Your task to perform on an android device: Open the calendar and show me this week's events? Image 0: 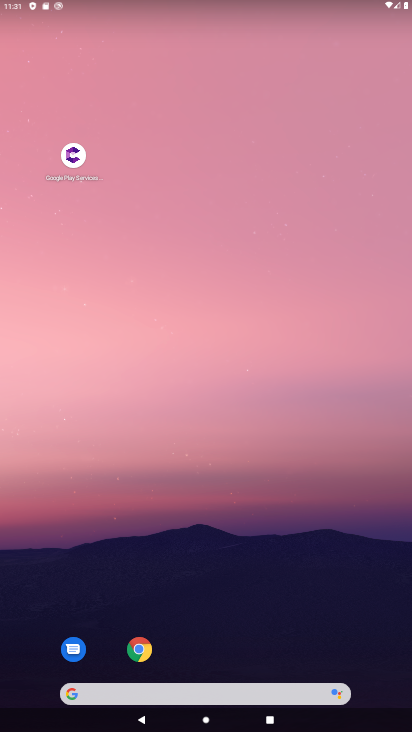
Step 0: drag from (281, 634) to (345, 9)
Your task to perform on an android device: Open the calendar and show me this week's events? Image 1: 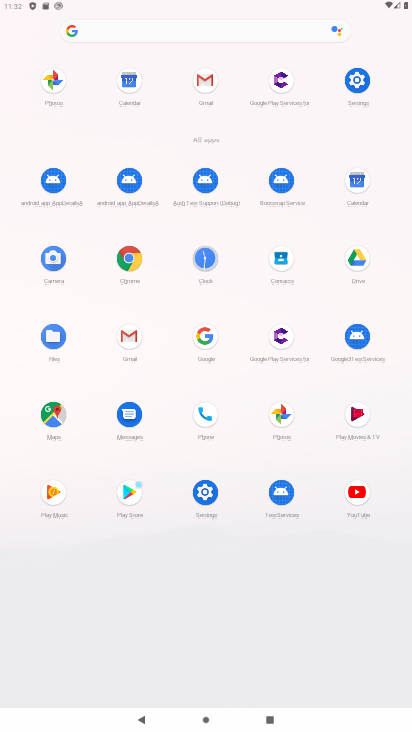
Step 1: click (358, 196)
Your task to perform on an android device: Open the calendar and show me this week's events? Image 2: 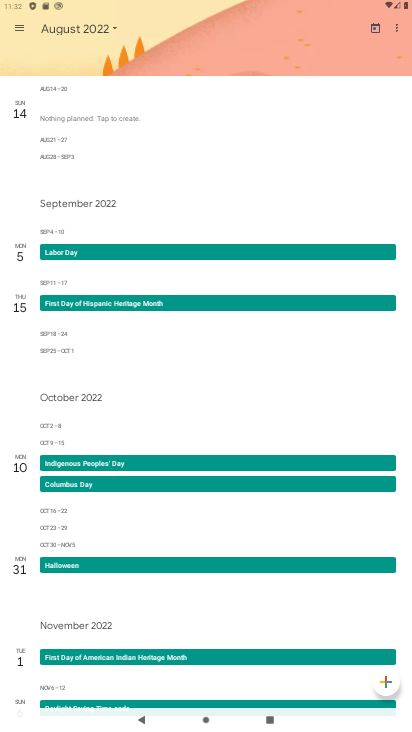
Step 2: click (66, 23)
Your task to perform on an android device: Open the calendar and show me this week's events? Image 3: 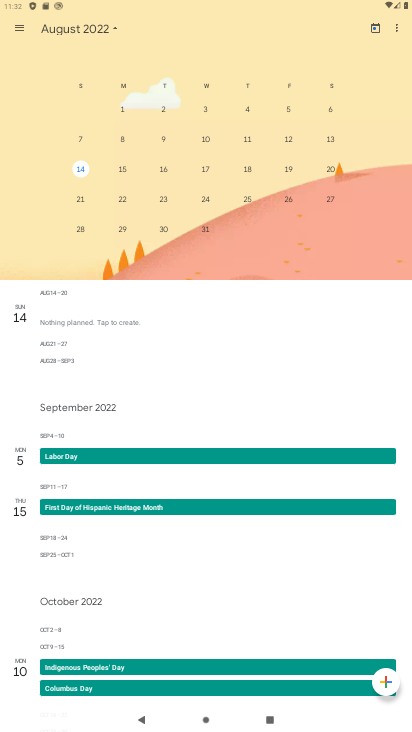
Step 3: drag from (63, 224) to (375, 186)
Your task to perform on an android device: Open the calendar and show me this week's events? Image 4: 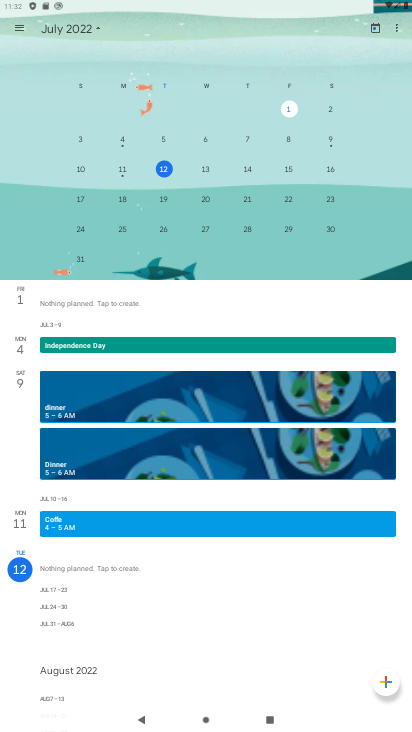
Step 4: click (160, 167)
Your task to perform on an android device: Open the calendar and show me this week's events? Image 5: 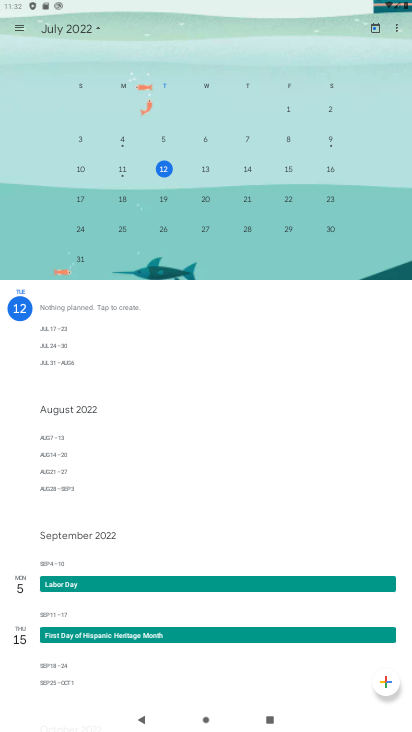
Step 5: click (213, 172)
Your task to perform on an android device: Open the calendar and show me this week's events? Image 6: 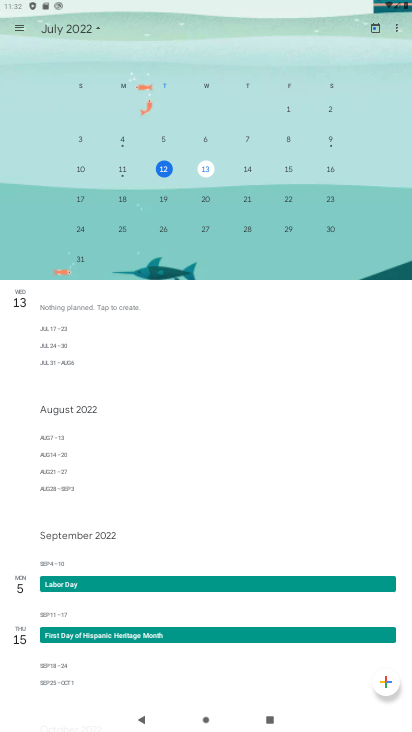
Step 6: click (256, 176)
Your task to perform on an android device: Open the calendar and show me this week's events? Image 7: 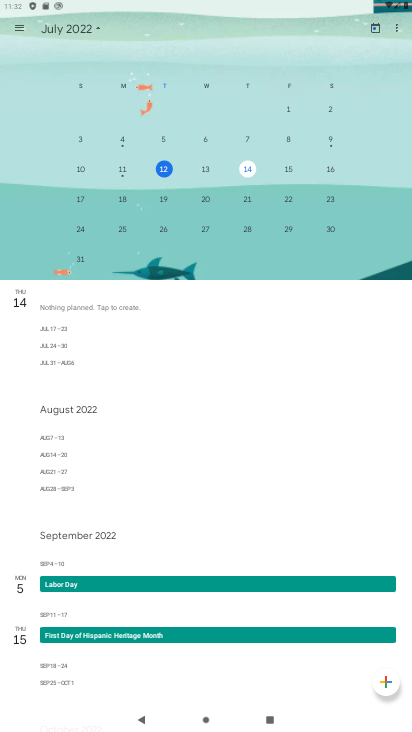
Step 7: click (293, 174)
Your task to perform on an android device: Open the calendar and show me this week's events? Image 8: 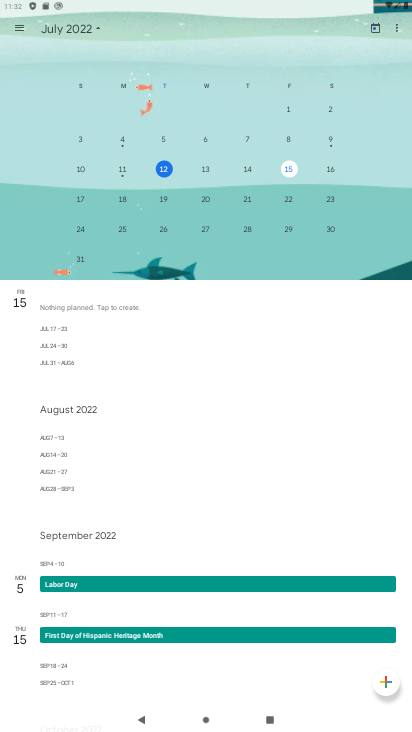
Step 8: click (330, 171)
Your task to perform on an android device: Open the calendar and show me this week's events? Image 9: 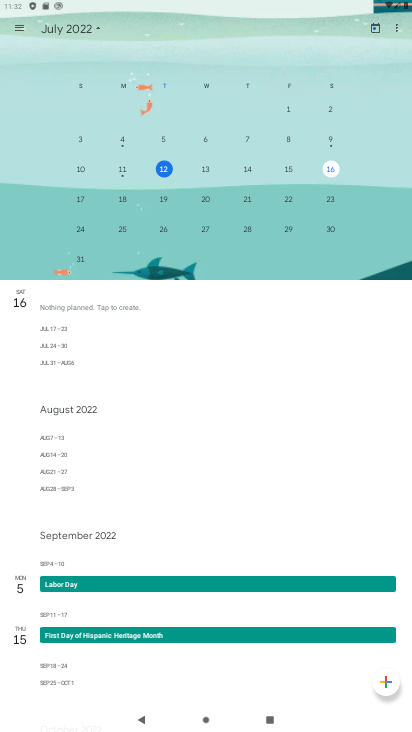
Step 9: task complete